Your task to perform on an android device: What's the news in Suriname? Image 0: 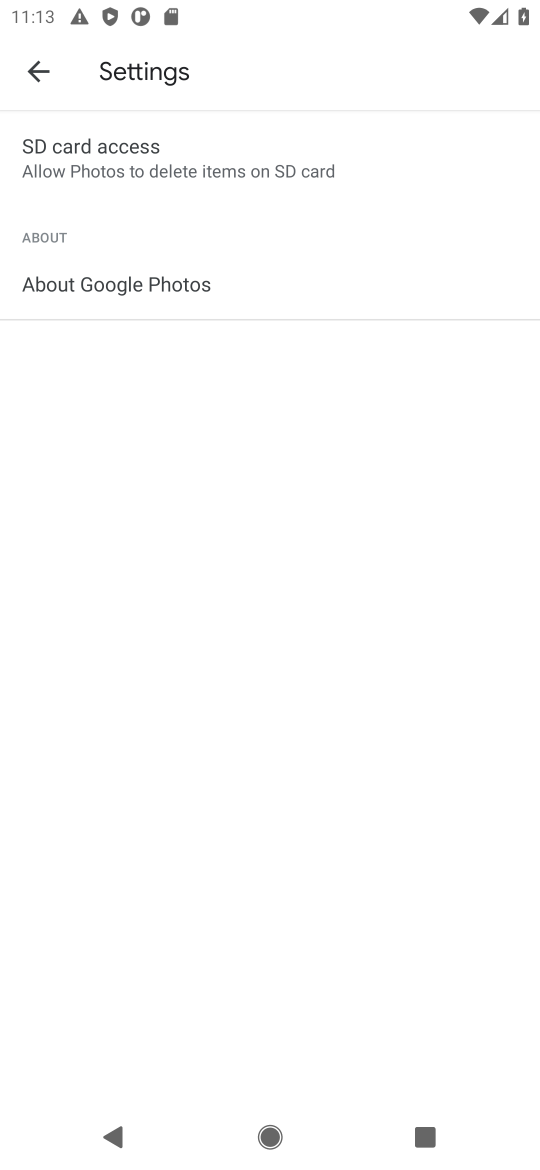
Step 0: press home button
Your task to perform on an android device: What's the news in Suriname? Image 1: 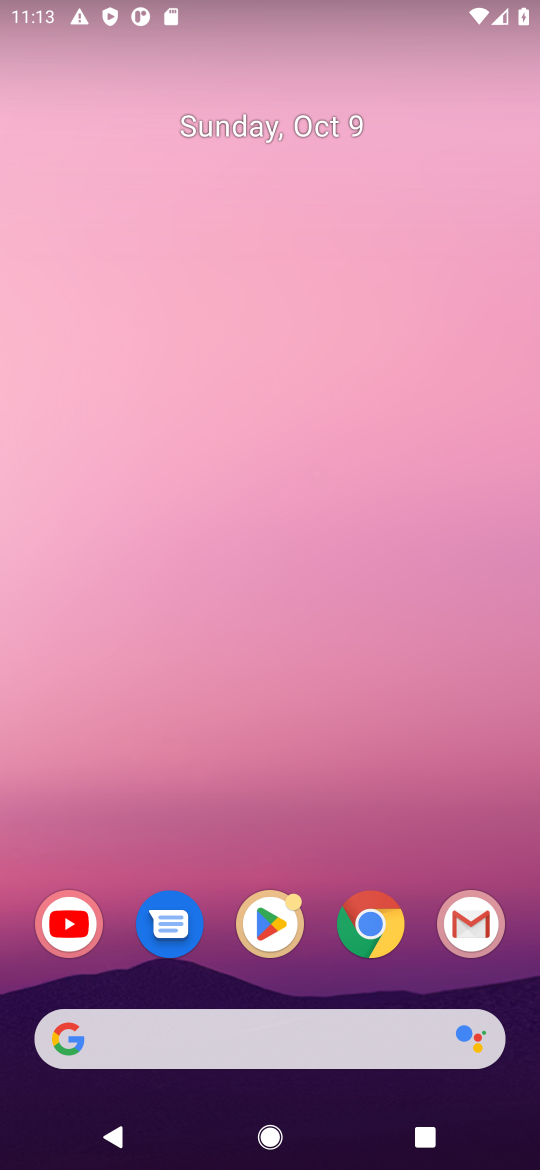
Step 1: drag from (361, 854) to (267, 248)
Your task to perform on an android device: What's the news in Suriname? Image 2: 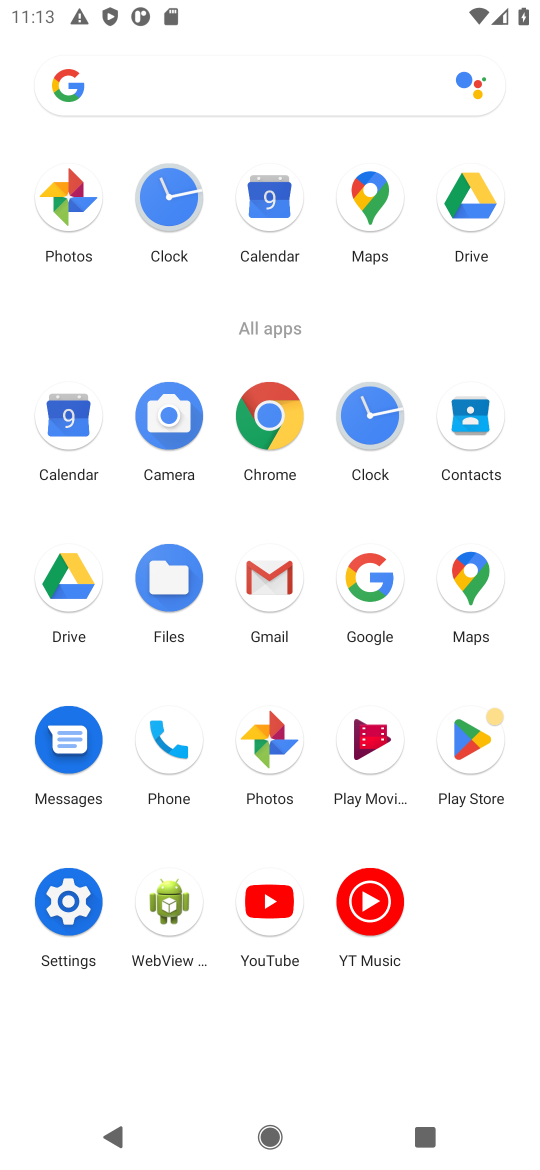
Step 2: click (301, 415)
Your task to perform on an android device: What's the news in Suriname? Image 3: 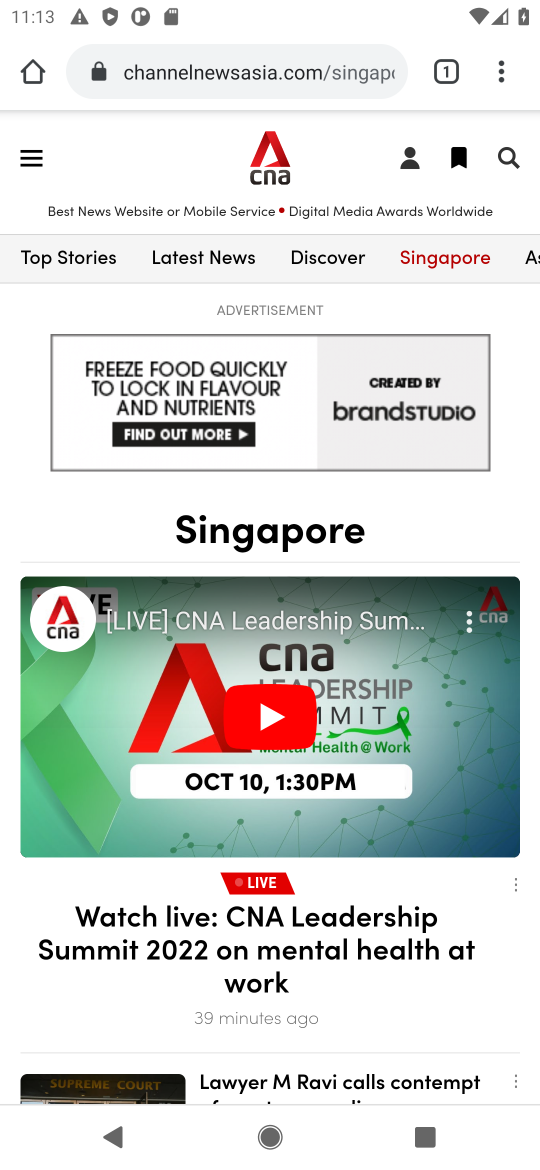
Step 3: click (246, 74)
Your task to perform on an android device: What's the news in Suriname? Image 4: 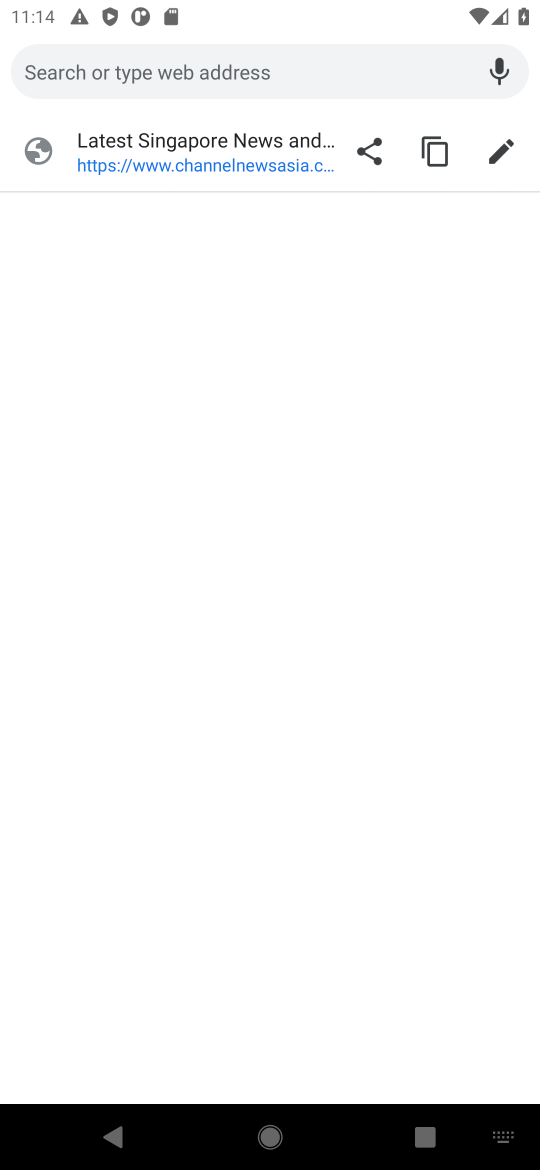
Step 4: click (246, 74)
Your task to perform on an android device: What's the news in Suriname? Image 5: 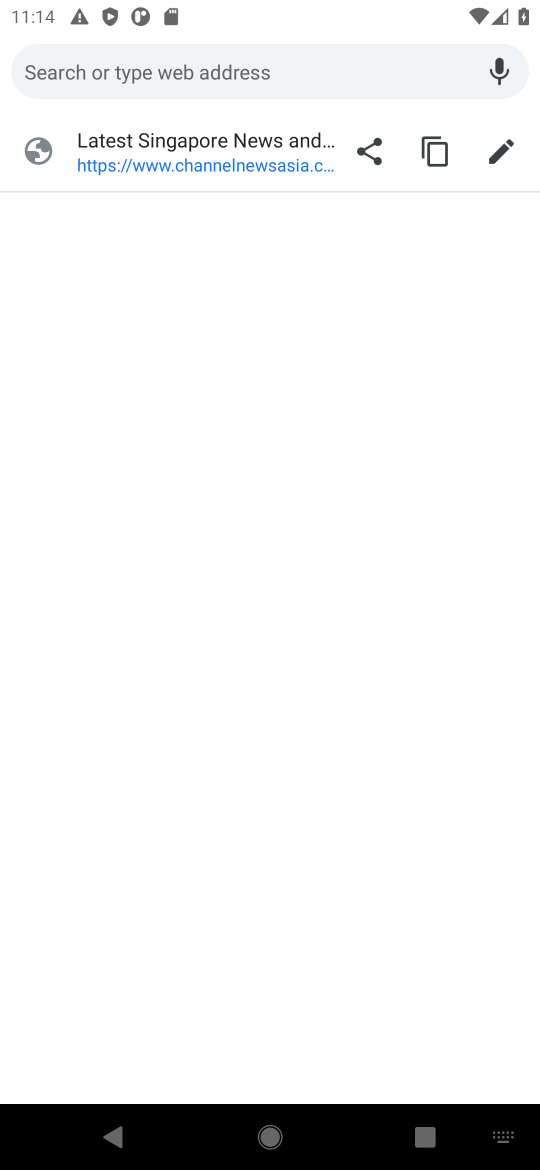
Step 5: type "What's the news in Suriname?"
Your task to perform on an android device: What's the news in Suriname? Image 6: 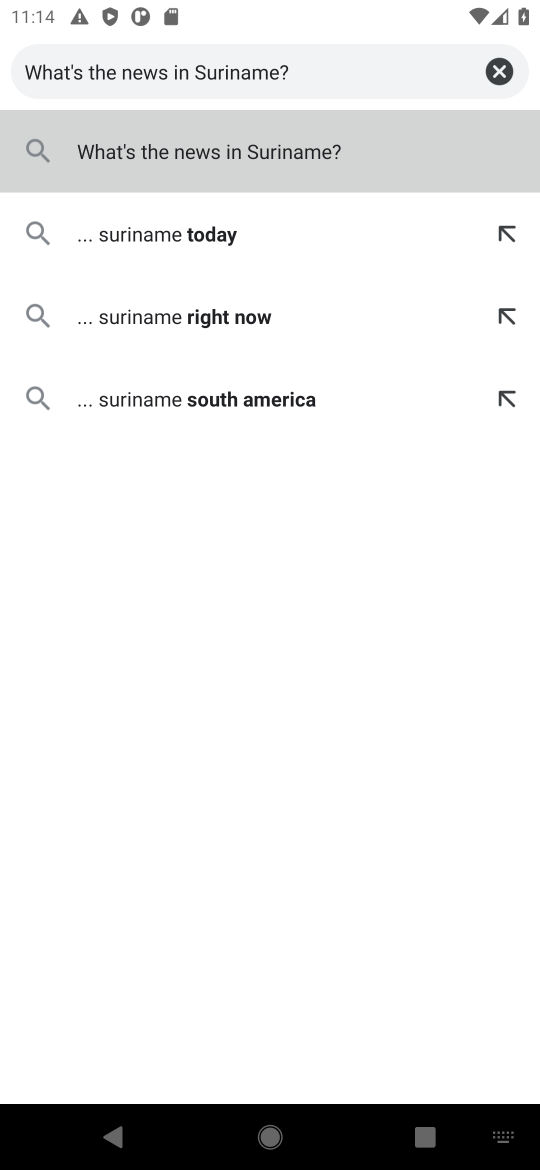
Step 6: press enter
Your task to perform on an android device: What's the news in Suriname? Image 7: 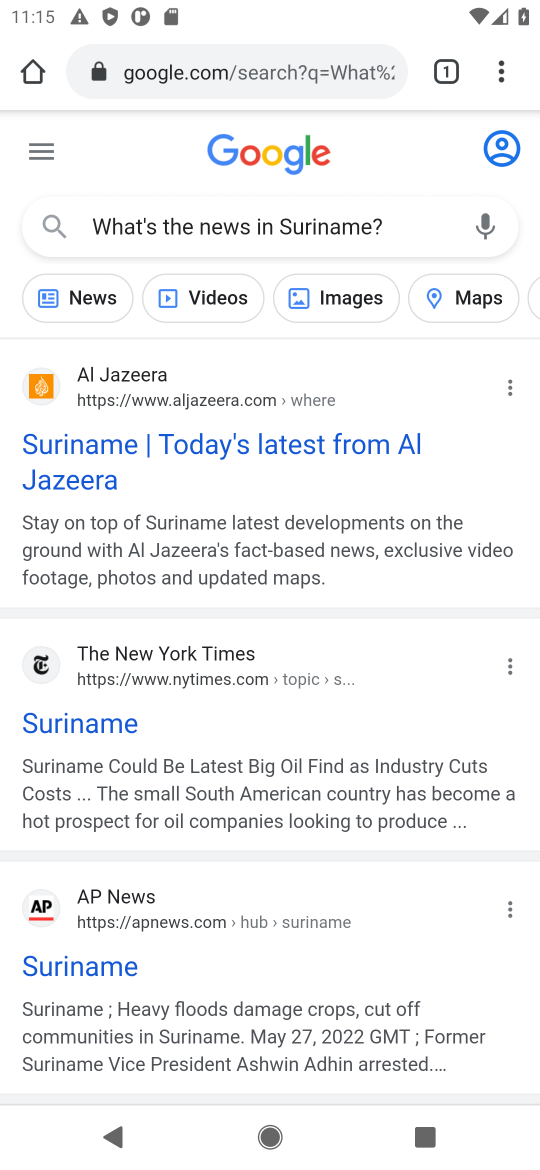
Step 7: click (101, 476)
Your task to perform on an android device: What's the news in Suriname? Image 8: 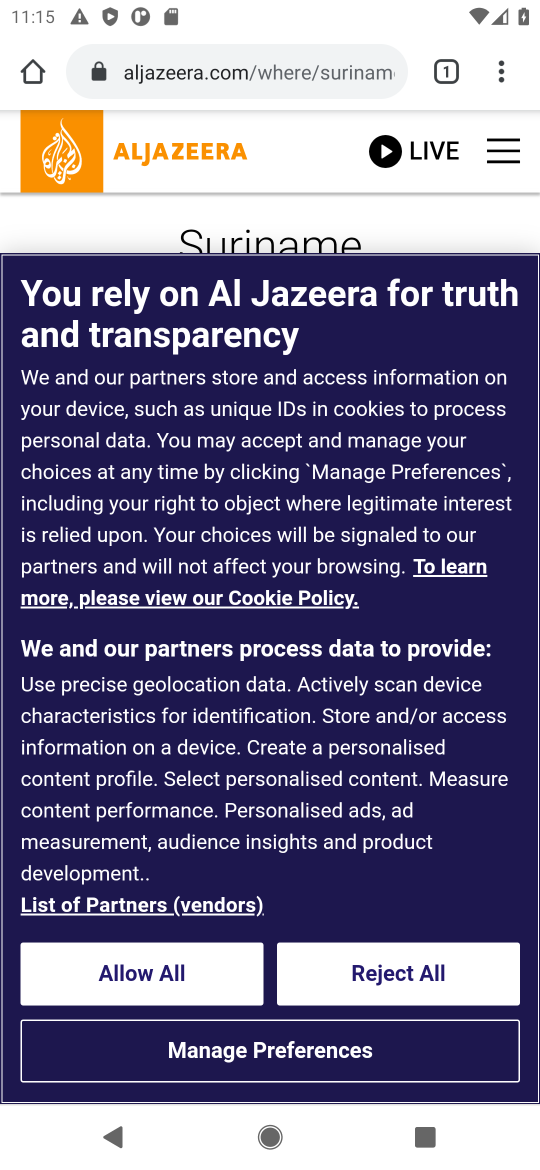
Step 8: task complete